Your task to perform on an android device: check out phone information Image 0: 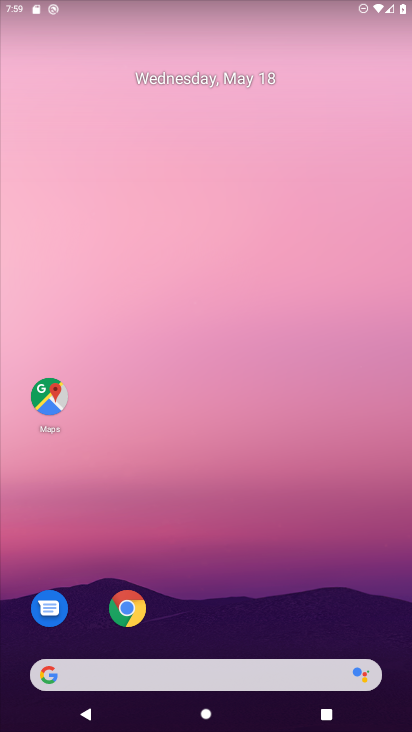
Step 0: drag from (290, 610) to (295, 188)
Your task to perform on an android device: check out phone information Image 1: 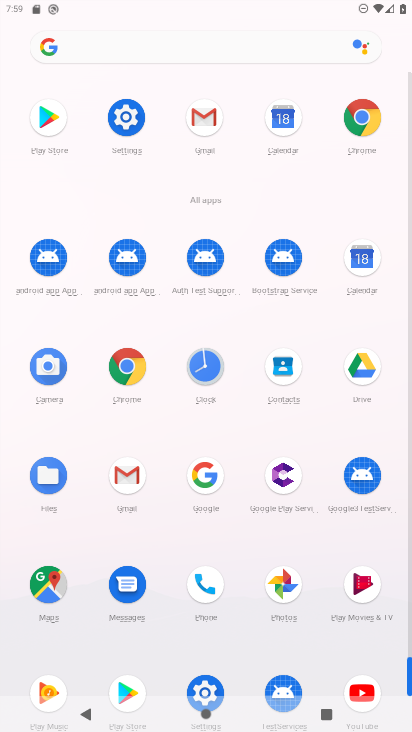
Step 1: drag from (166, 213) to (174, 47)
Your task to perform on an android device: check out phone information Image 2: 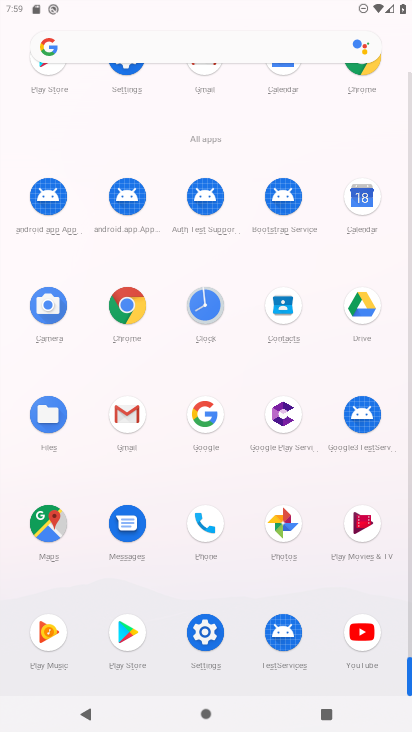
Step 2: click (203, 640)
Your task to perform on an android device: check out phone information Image 3: 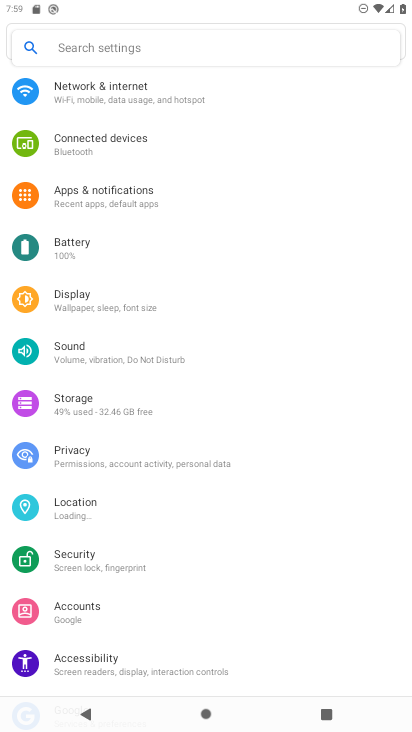
Step 3: drag from (281, 638) to (299, 225)
Your task to perform on an android device: check out phone information Image 4: 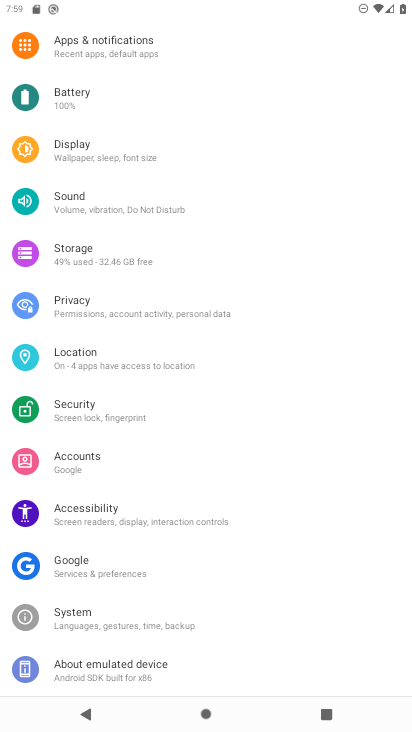
Step 4: click (109, 670)
Your task to perform on an android device: check out phone information Image 5: 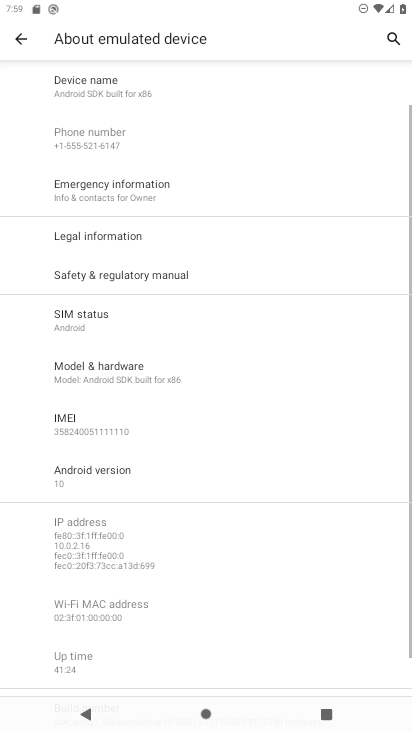
Step 5: task complete